Your task to perform on an android device: open app "McDonald's" (install if not already installed) and enter user name: "copes@yahoo.com" and password: "Rhenish" Image 0: 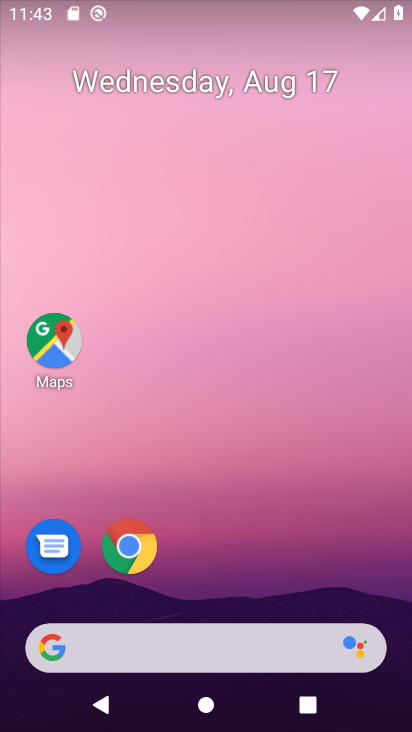
Step 0: drag from (218, 658) to (174, 1)
Your task to perform on an android device: open app "McDonald's" (install if not already installed) and enter user name: "copes@yahoo.com" and password: "Rhenish" Image 1: 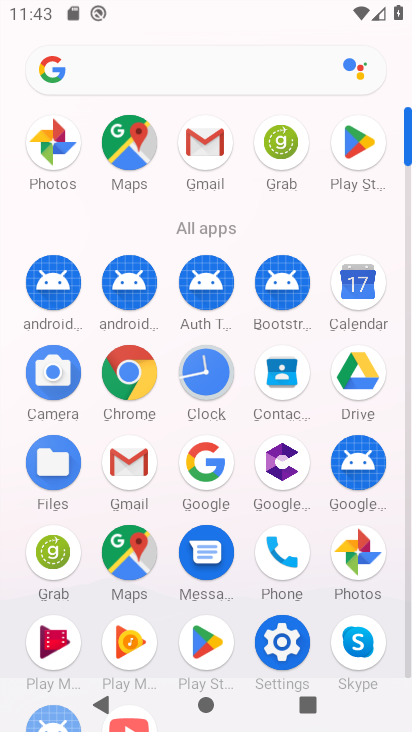
Step 1: click (215, 640)
Your task to perform on an android device: open app "McDonald's" (install if not already installed) and enter user name: "copes@yahoo.com" and password: "Rhenish" Image 2: 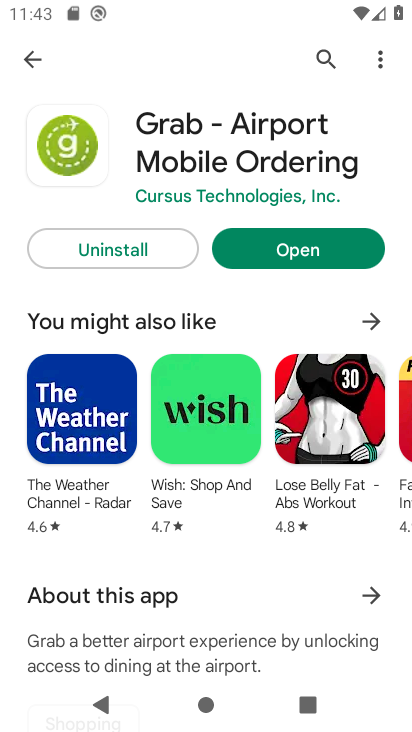
Step 2: click (328, 62)
Your task to perform on an android device: open app "McDonald's" (install if not already installed) and enter user name: "copes@yahoo.com" and password: "Rhenish" Image 3: 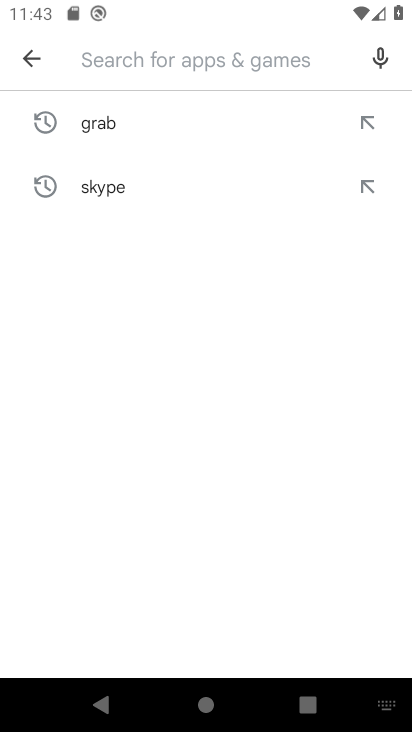
Step 3: type "mcdonald"
Your task to perform on an android device: open app "McDonald's" (install if not already installed) and enter user name: "copes@yahoo.com" and password: "Rhenish" Image 4: 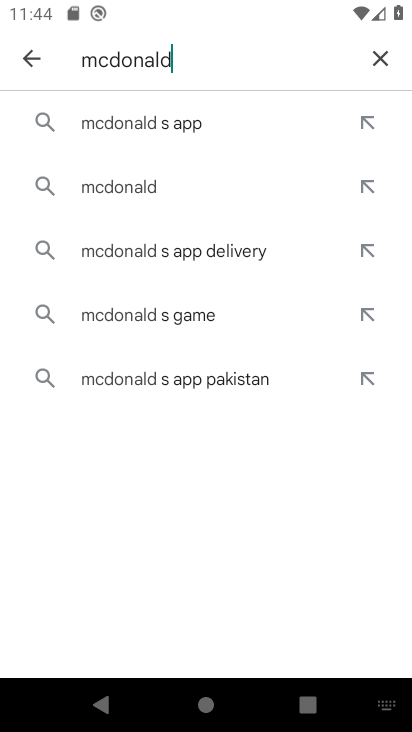
Step 4: click (133, 186)
Your task to perform on an android device: open app "McDonald's" (install if not already installed) and enter user name: "copes@yahoo.com" and password: "Rhenish" Image 5: 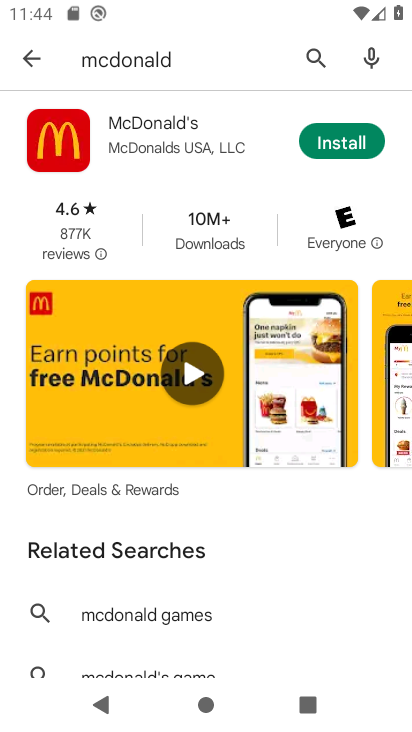
Step 5: click (332, 143)
Your task to perform on an android device: open app "McDonald's" (install if not already installed) and enter user name: "copes@yahoo.com" and password: "Rhenish" Image 6: 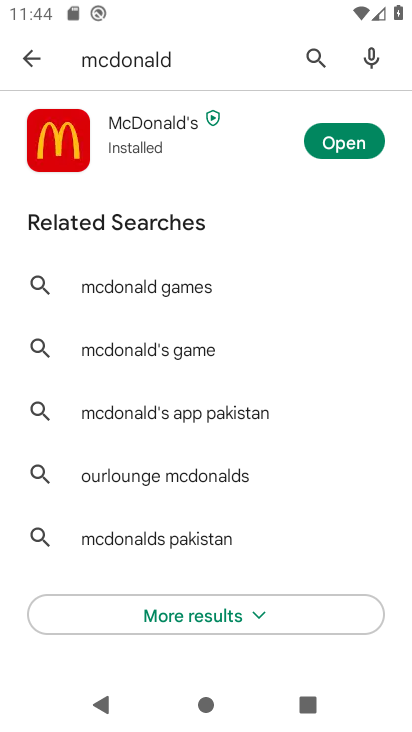
Step 6: click (353, 140)
Your task to perform on an android device: open app "McDonald's" (install if not already installed) and enter user name: "copes@yahoo.com" and password: "Rhenish" Image 7: 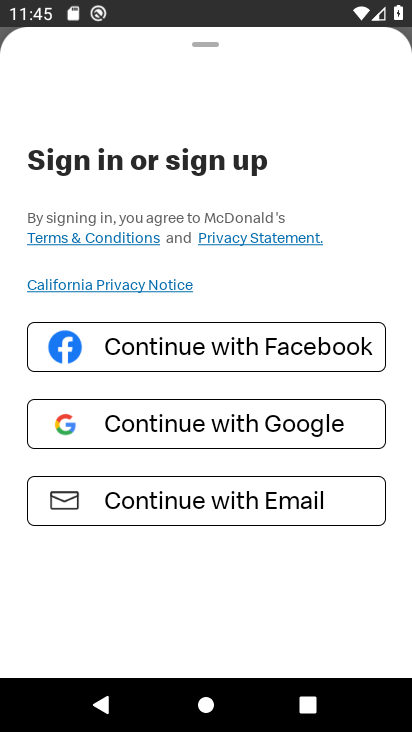
Step 7: click (199, 499)
Your task to perform on an android device: open app "McDonald's" (install if not already installed) and enter user name: "copes@yahoo.com" and password: "Rhenish" Image 8: 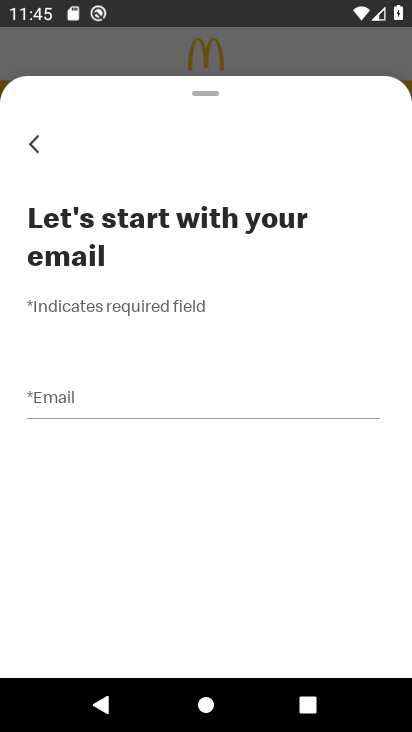
Step 8: click (87, 412)
Your task to perform on an android device: open app "McDonald's" (install if not already installed) and enter user name: "copes@yahoo.com" and password: "Rhenish" Image 9: 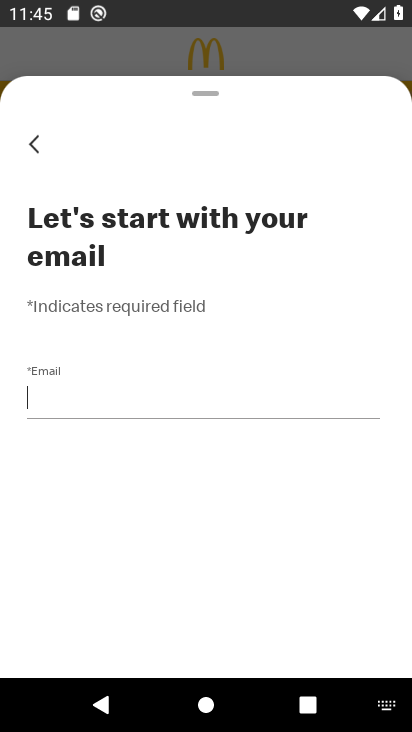
Step 9: type "copes@yahoo.com"
Your task to perform on an android device: open app "McDonald's" (install if not already installed) and enter user name: "copes@yahoo.com" and password: "Rhenish" Image 10: 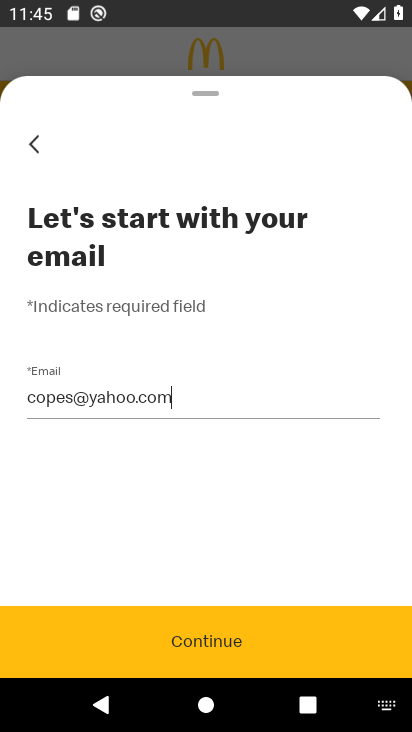
Step 10: click (181, 636)
Your task to perform on an android device: open app "McDonald's" (install if not already installed) and enter user name: "copes@yahoo.com" and password: "Rhenish" Image 11: 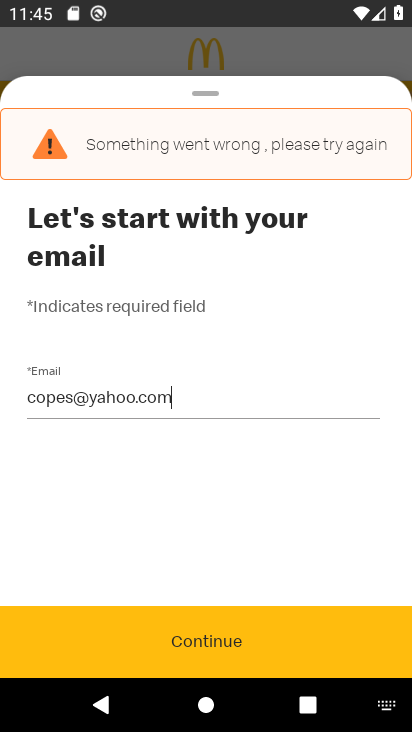
Step 11: click (260, 624)
Your task to perform on an android device: open app "McDonald's" (install if not already installed) and enter user name: "copes@yahoo.com" and password: "Rhenish" Image 12: 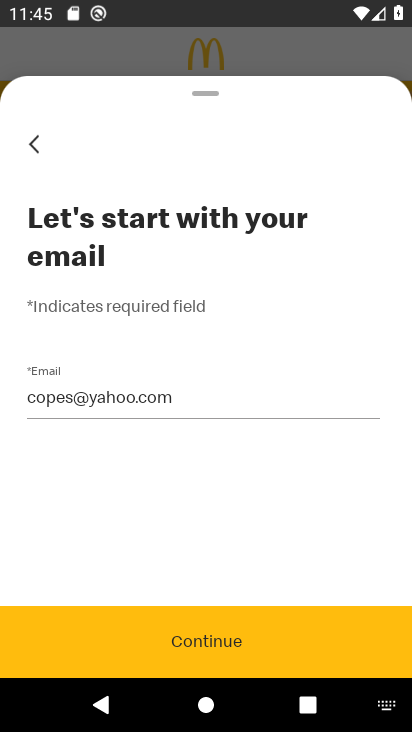
Step 12: task complete